Your task to perform on an android device: turn off notifications in google photos Image 0: 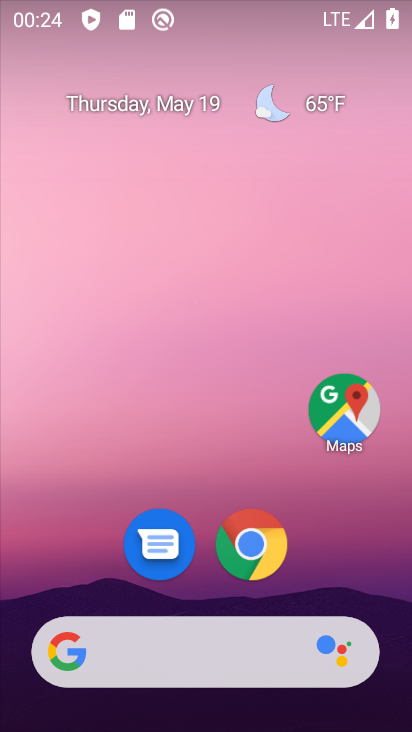
Step 0: drag from (372, 560) to (371, 105)
Your task to perform on an android device: turn off notifications in google photos Image 1: 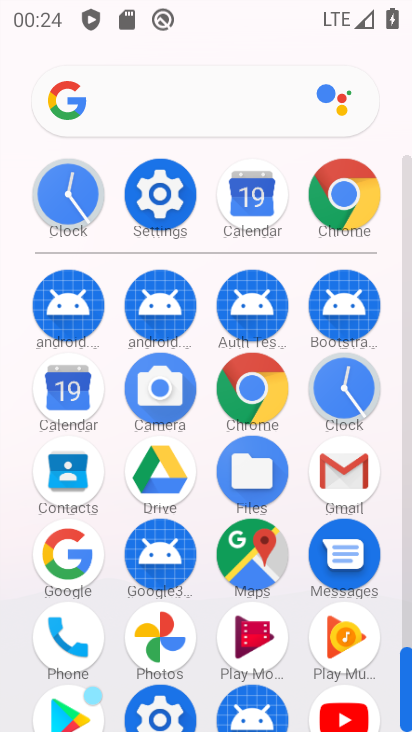
Step 1: click (177, 639)
Your task to perform on an android device: turn off notifications in google photos Image 2: 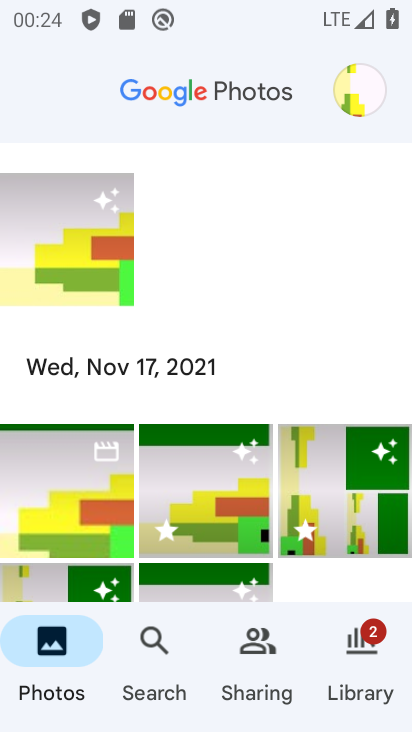
Step 2: click (360, 84)
Your task to perform on an android device: turn off notifications in google photos Image 3: 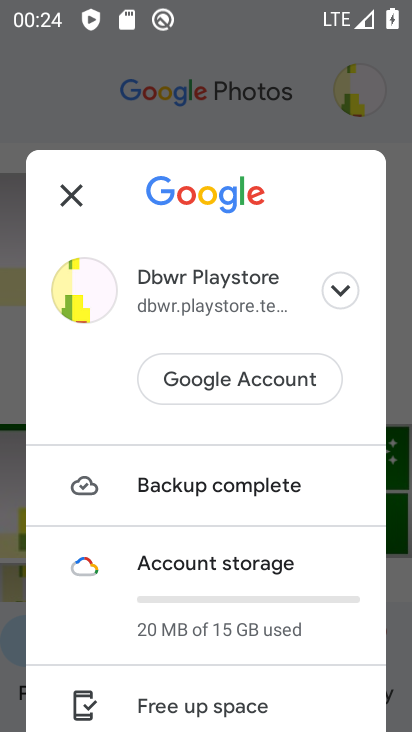
Step 3: drag from (312, 544) to (297, 344)
Your task to perform on an android device: turn off notifications in google photos Image 4: 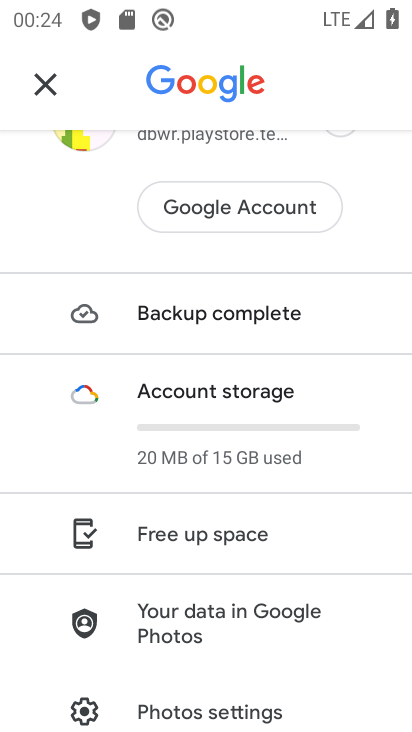
Step 4: drag from (340, 656) to (336, 433)
Your task to perform on an android device: turn off notifications in google photos Image 5: 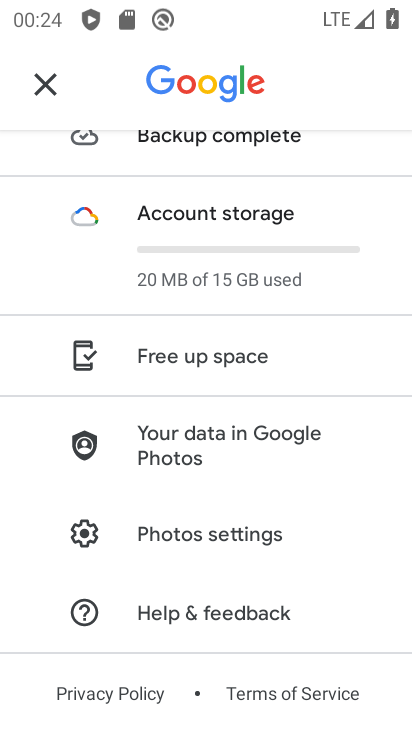
Step 5: click (263, 540)
Your task to perform on an android device: turn off notifications in google photos Image 6: 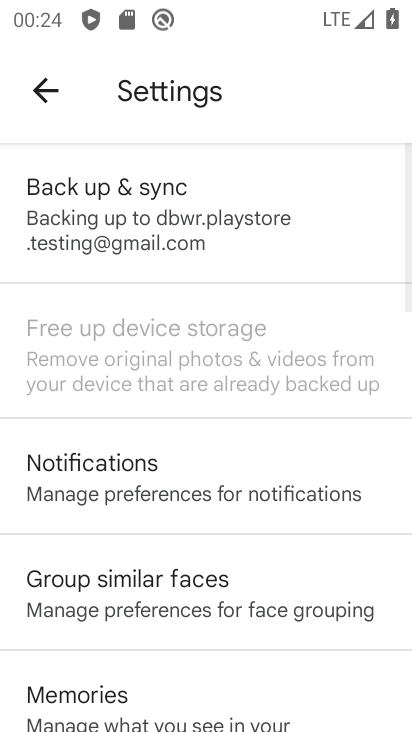
Step 6: drag from (266, 558) to (268, 363)
Your task to perform on an android device: turn off notifications in google photos Image 7: 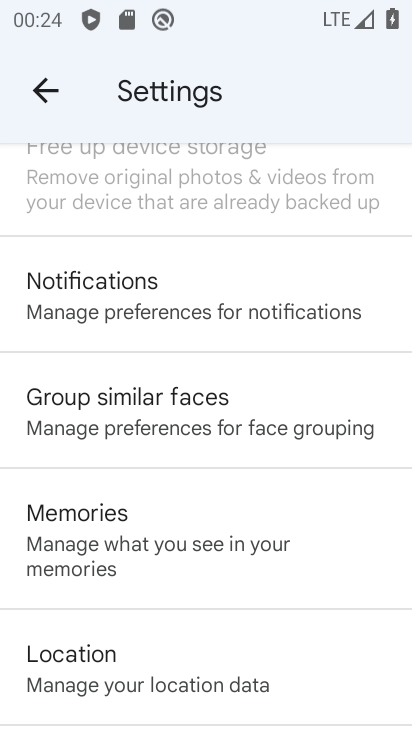
Step 7: click (265, 318)
Your task to perform on an android device: turn off notifications in google photos Image 8: 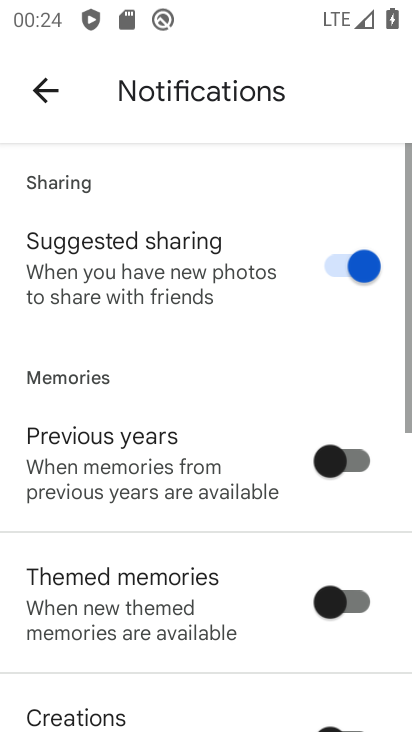
Step 8: drag from (261, 588) to (260, 403)
Your task to perform on an android device: turn off notifications in google photos Image 9: 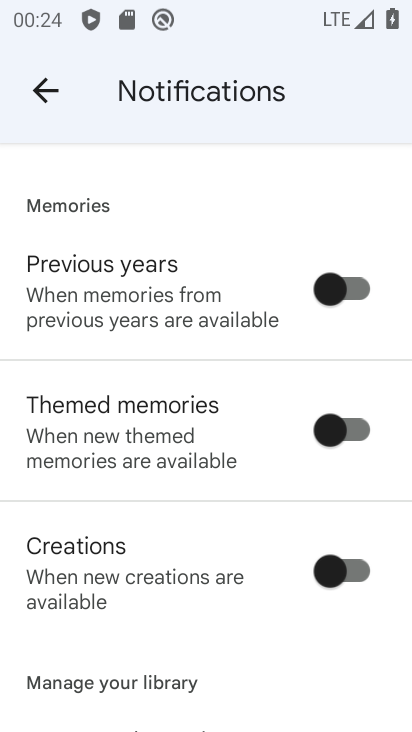
Step 9: drag from (262, 623) to (263, 445)
Your task to perform on an android device: turn off notifications in google photos Image 10: 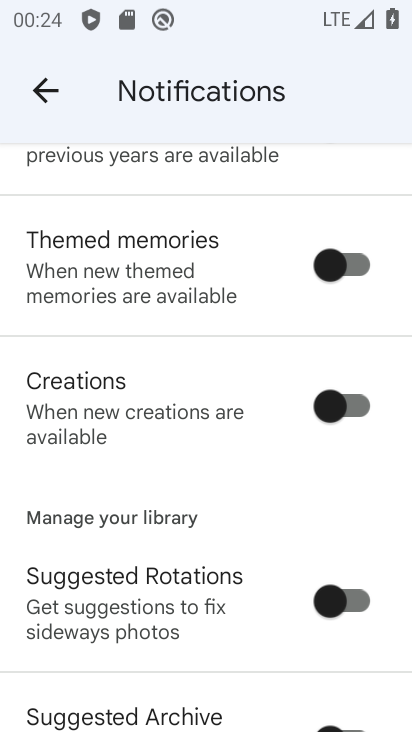
Step 10: drag from (262, 632) to (266, 470)
Your task to perform on an android device: turn off notifications in google photos Image 11: 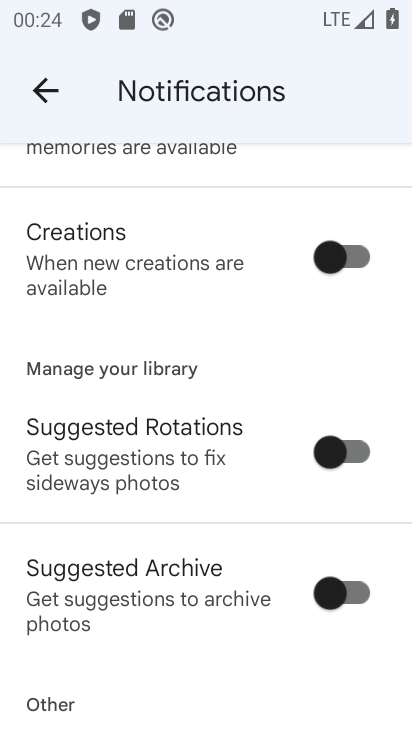
Step 11: drag from (254, 684) to (252, 486)
Your task to perform on an android device: turn off notifications in google photos Image 12: 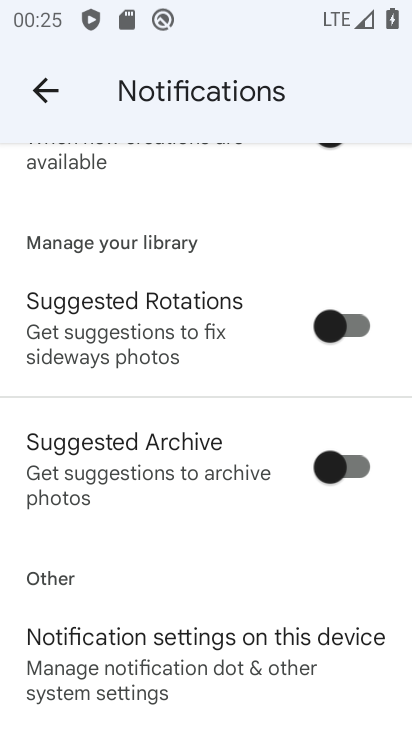
Step 12: drag from (237, 673) to (248, 517)
Your task to perform on an android device: turn off notifications in google photos Image 13: 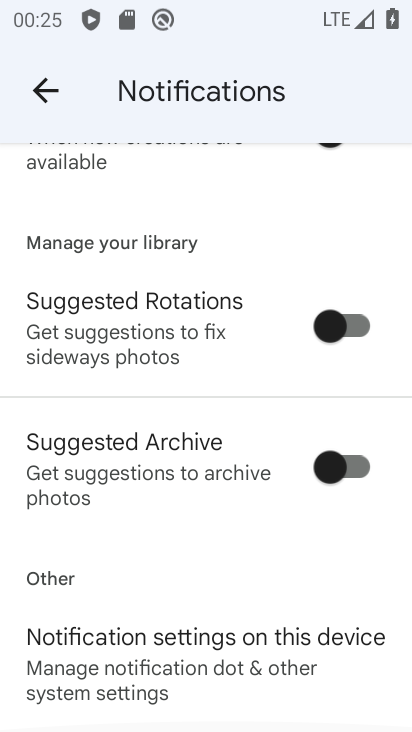
Step 13: click (258, 657)
Your task to perform on an android device: turn off notifications in google photos Image 14: 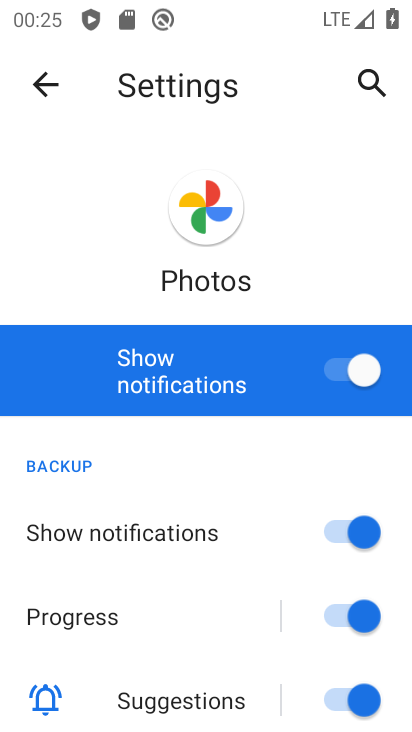
Step 14: click (354, 374)
Your task to perform on an android device: turn off notifications in google photos Image 15: 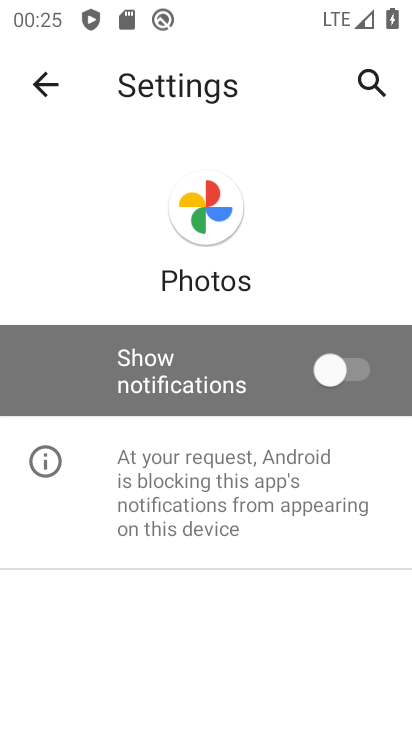
Step 15: task complete